Your task to perform on an android device: Open my contact list Image 0: 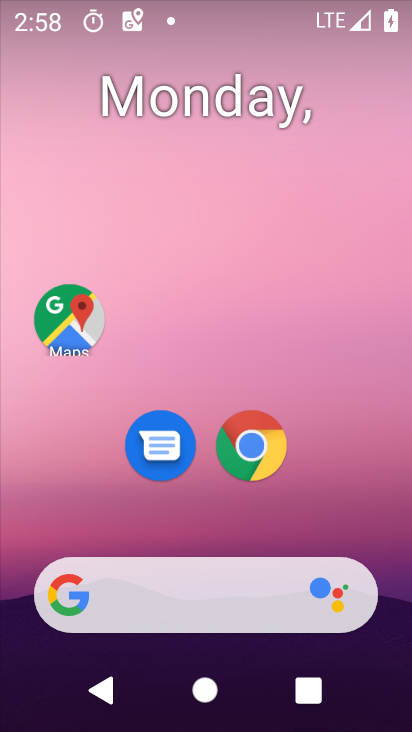
Step 0: drag from (162, 600) to (169, 162)
Your task to perform on an android device: Open my contact list Image 1: 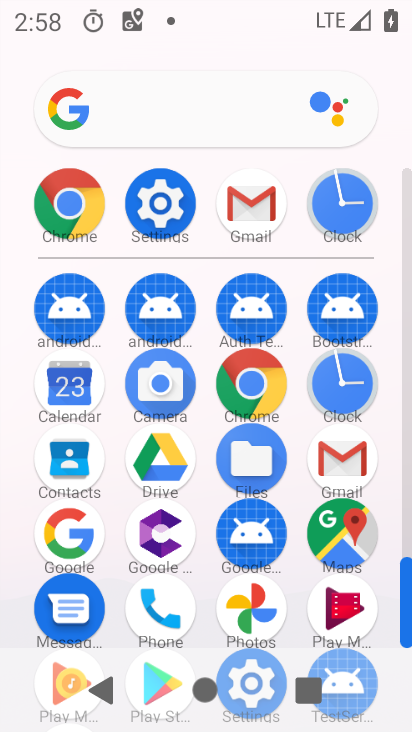
Step 1: click (51, 452)
Your task to perform on an android device: Open my contact list Image 2: 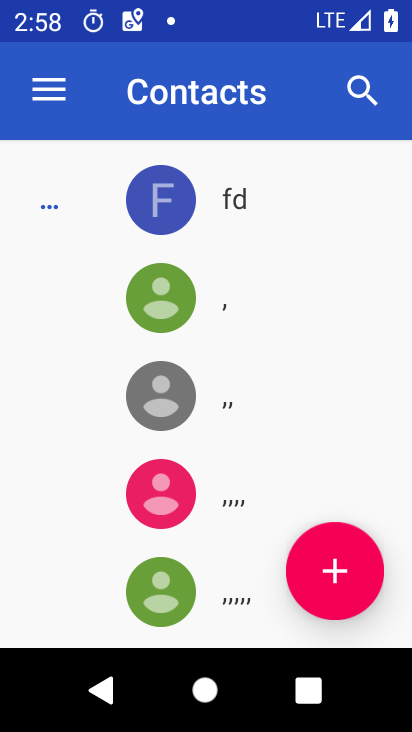
Step 2: task complete